Your task to perform on an android device: open chrome privacy settings Image 0: 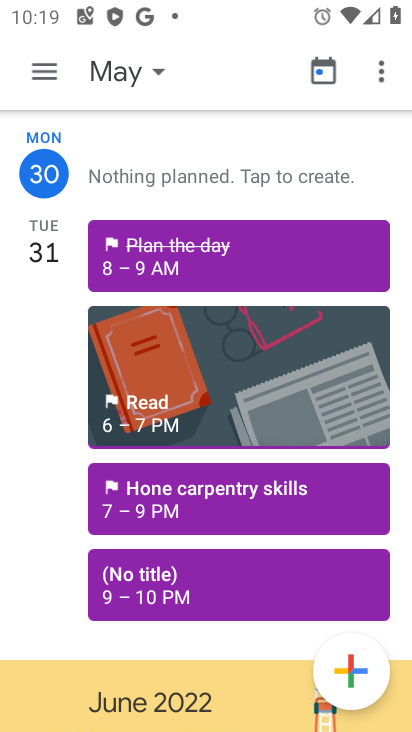
Step 0: press home button
Your task to perform on an android device: open chrome privacy settings Image 1: 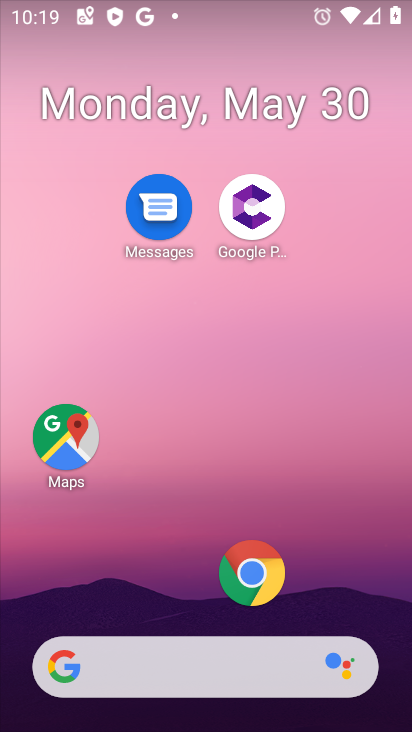
Step 1: drag from (111, 657) to (139, 253)
Your task to perform on an android device: open chrome privacy settings Image 2: 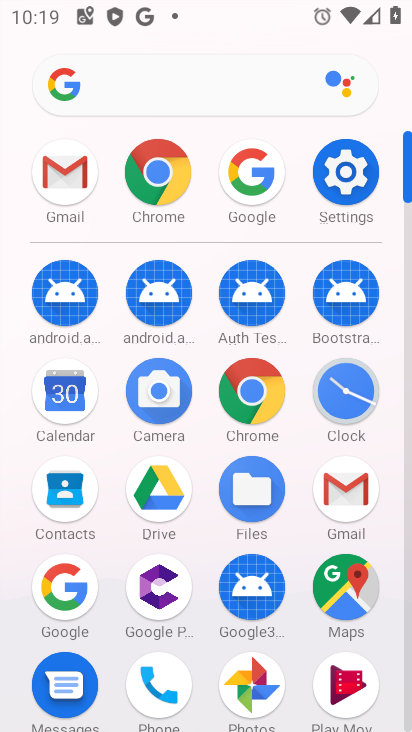
Step 2: click (168, 172)
Your task to perform on an android device: open chrome privacy settings Image 3: 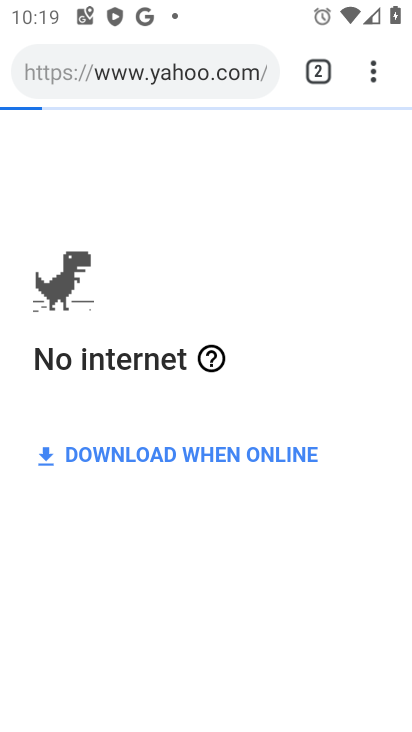
Step 3: click (376, 68)
Your task to perform on an android device: open chrome privacy settings Image 4: 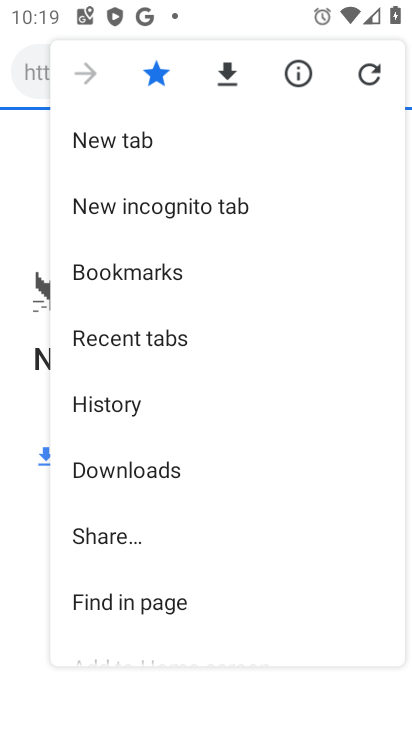
Step 4: drag from (281, 537) to (409, 215)
Your task to perform on an android device: open chrome privacy settings Image 5: 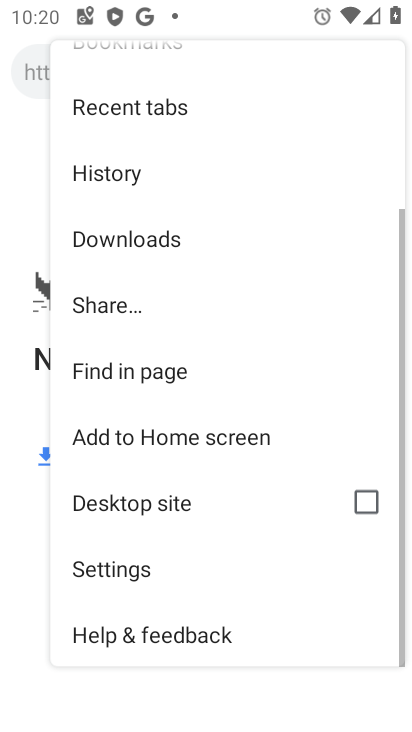
Step 5: click (128, 559)
Your task to perform on an android device: open chrome privacy settings Image 6: 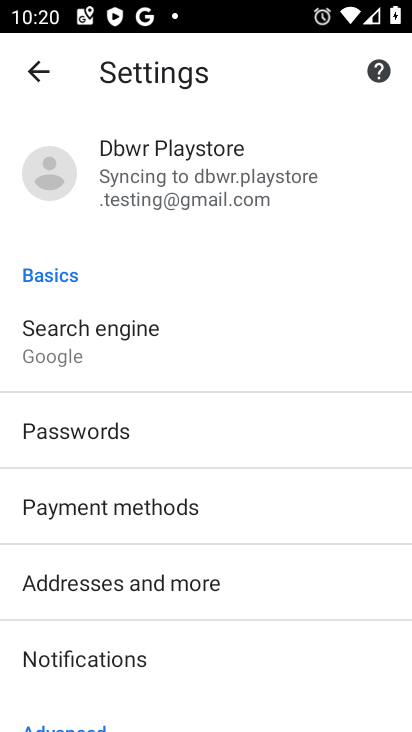
Step 6: drag from (113, 590) to (154, 273)
Your task to perform on an android device: open chrome privacy settings Image 7: 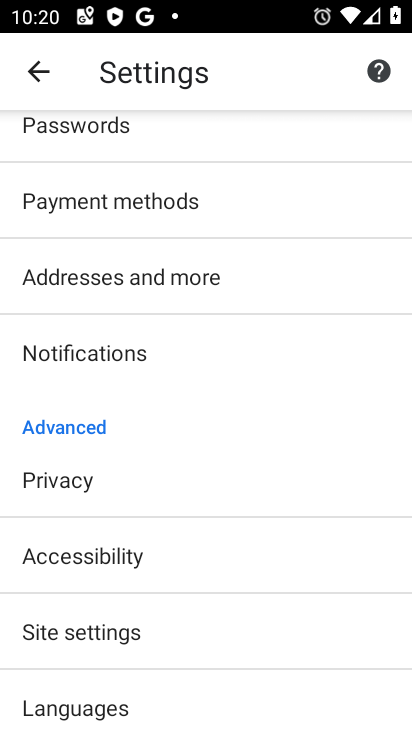
Step 7: click (74, 493)
Your task to perform on an android device: open chrome privacy settings Image 8: 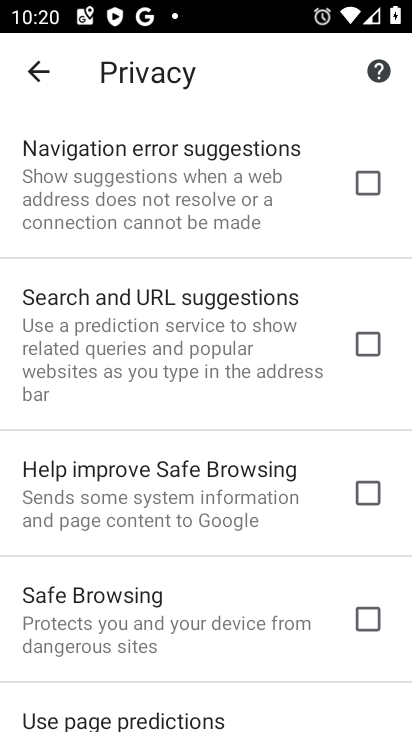
Step 8: task complete